Your task to perform on an android device: change timer sound Image 0: 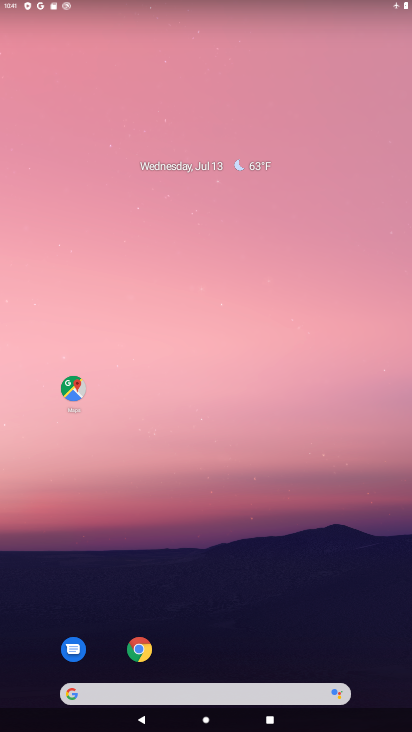
Step 0: drag from (187, 638) to (79, 22)
Your task to perform on an android device: change timer sound Image 1: 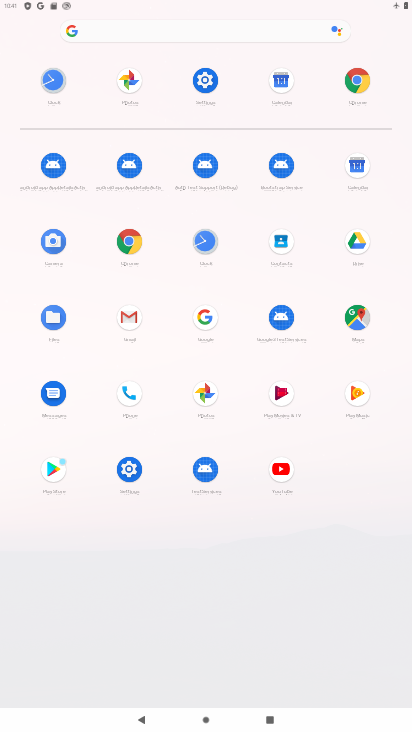
Step 1: click (205, 243)
Your task to perform on an android device: change timer sound Image 2: 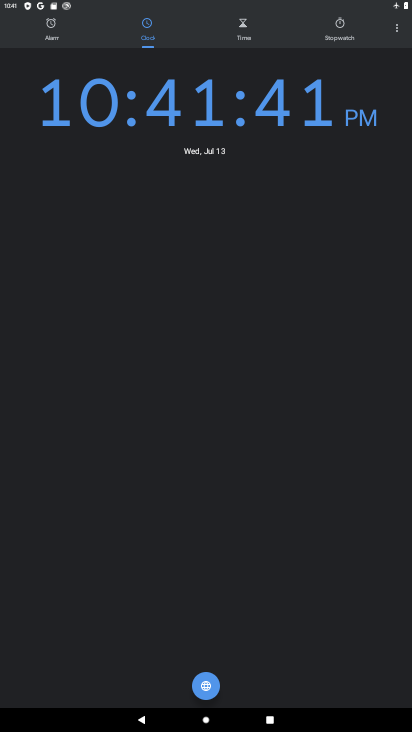
Step 2: click (404, 34)
Your task to perform on an android device: change timer sound Image 3: 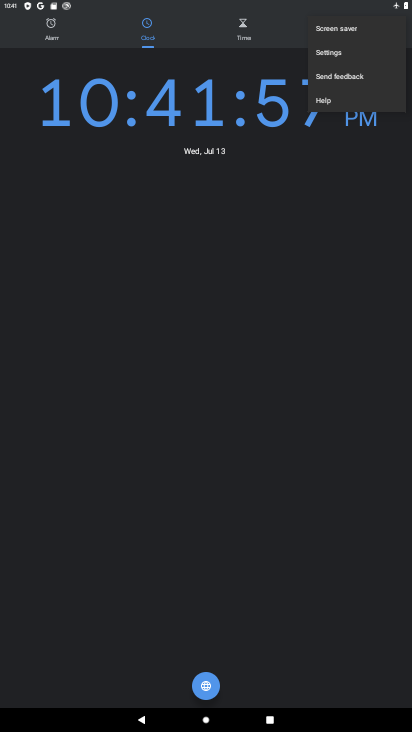
Step 3: click (329, 51)
Your task to perform on an android device: change timer sound Image 4: 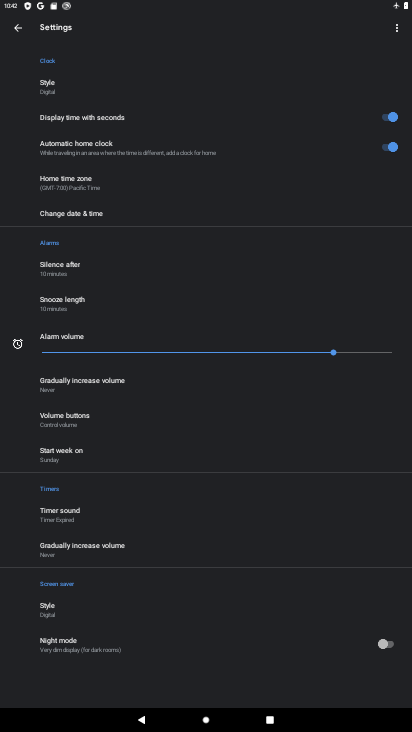
Step 4: click (77, 514)
Your task to perform on an android device: change timer sound Image 5: 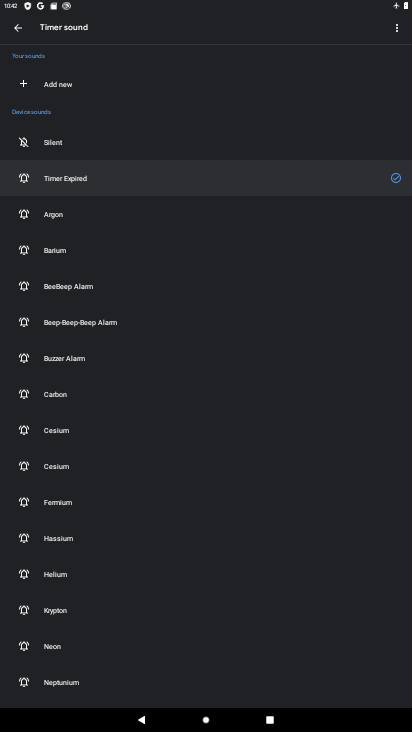
Step 5: click (72, 540)
Your task to perform on an android device: change timer sound Image 6: 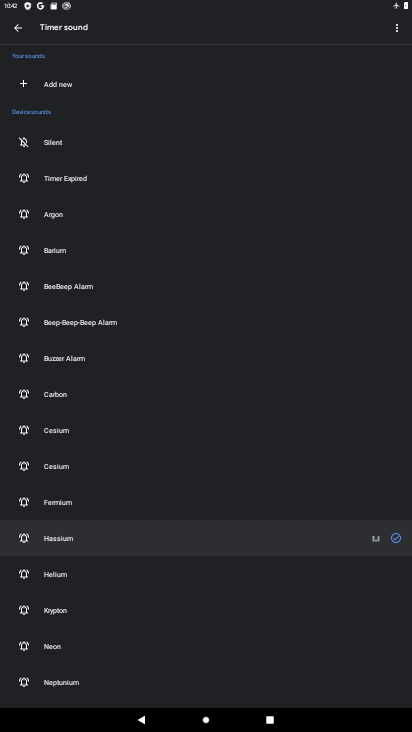
Step 6: task complete